Your task to perform on an android device: Open calendar and show me the fourth week of next month Image 0: 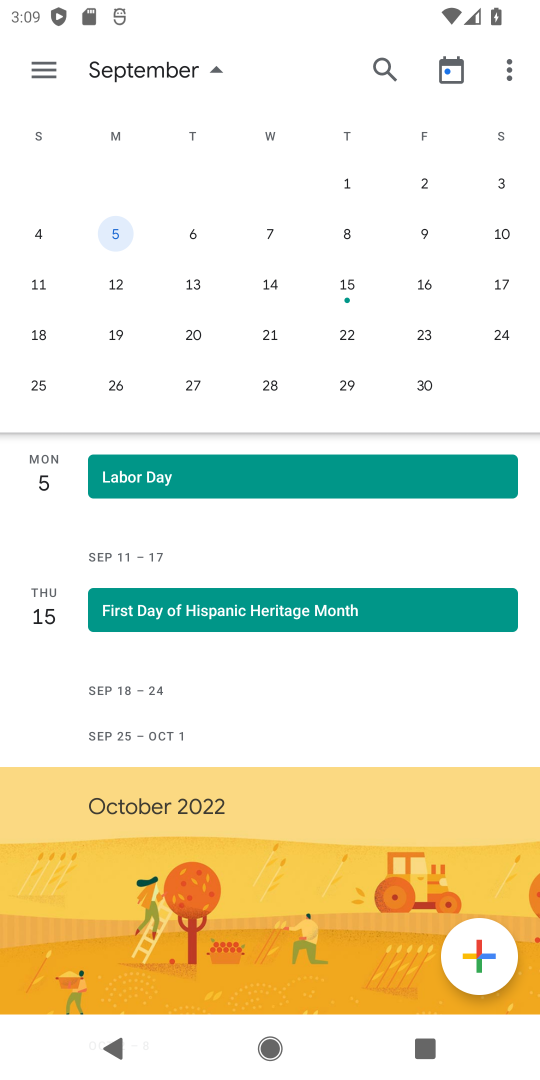
Step 0: press home button
Your task to perform on an android device: Open calendar and show me the fourth week of next month Image 1: 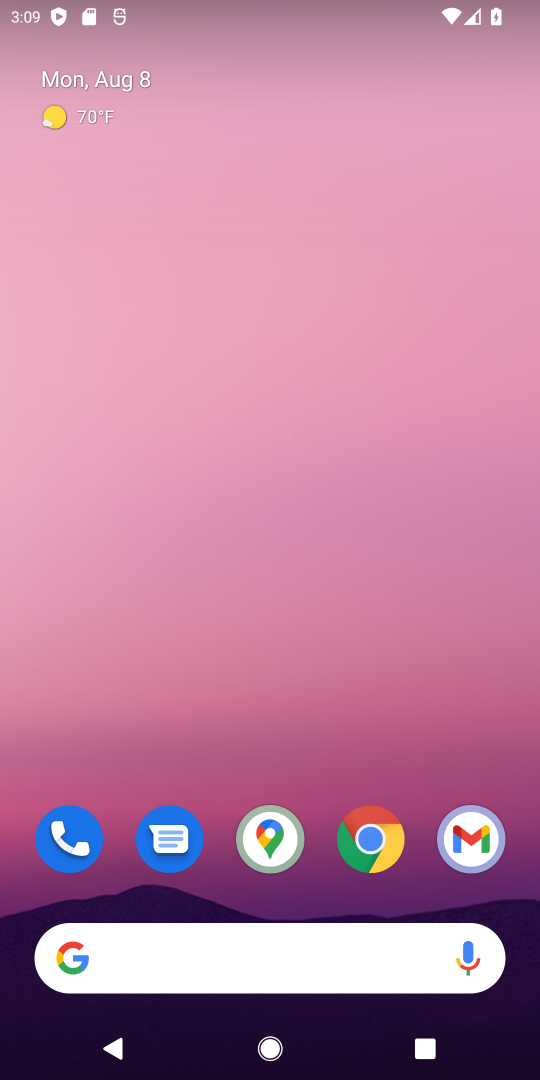
Step 1: drag from (440, 669) to (451, 235)
Your task to perform on an android device: Open calendar and show me the fourth week of next month Image 2: 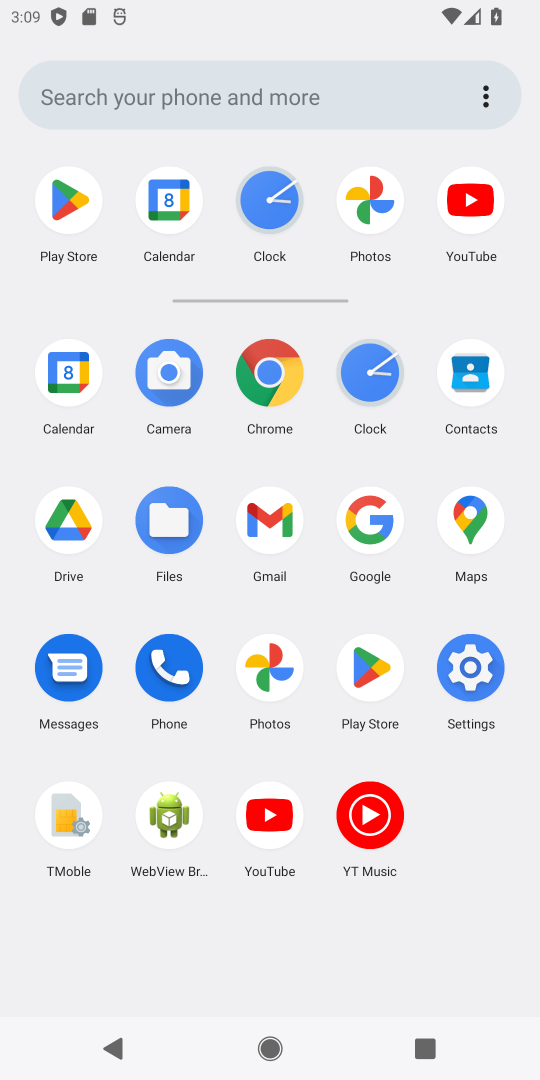
Step 2: click (67, 372)
Your task to perform on an android device: Open calendar and show me the fourth week of next month Image 3: 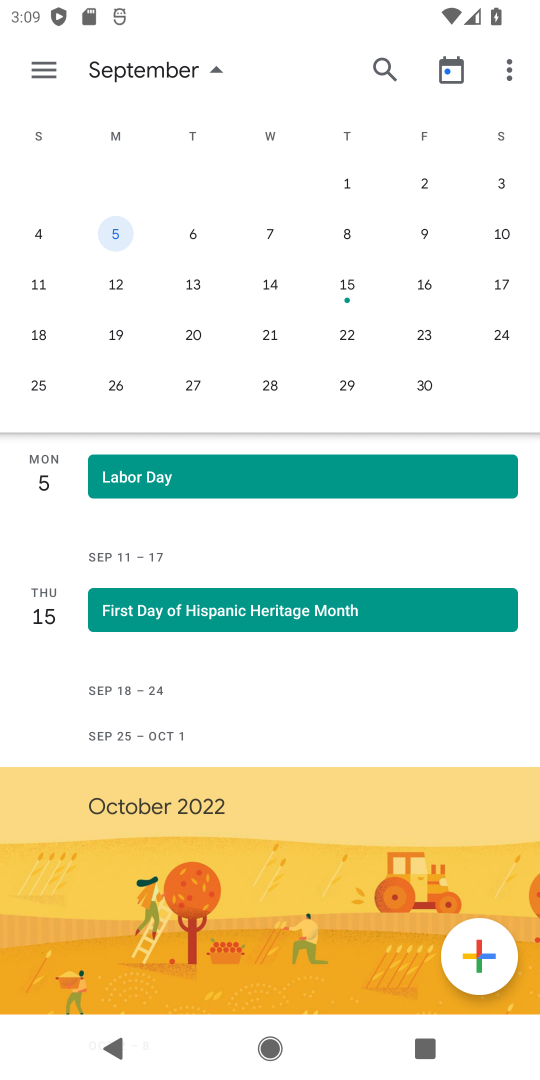
Step 3: click (114, 330)
Your task to perform on an android device: Open calendar and show me the fourth week of next month Image 4: 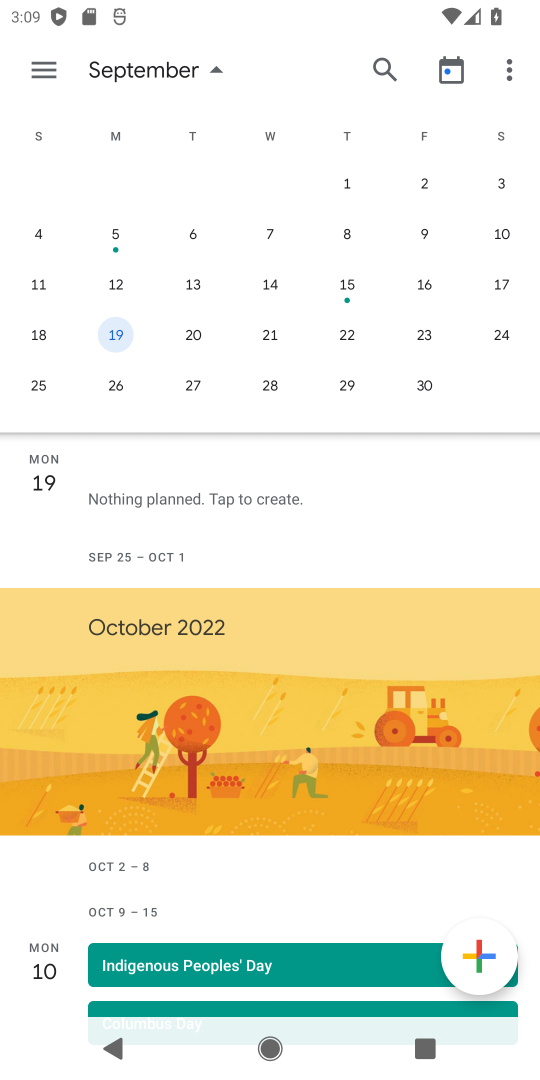
Step 4: task complete